Your task to perform on an android device: Open privacy settings Image 0: 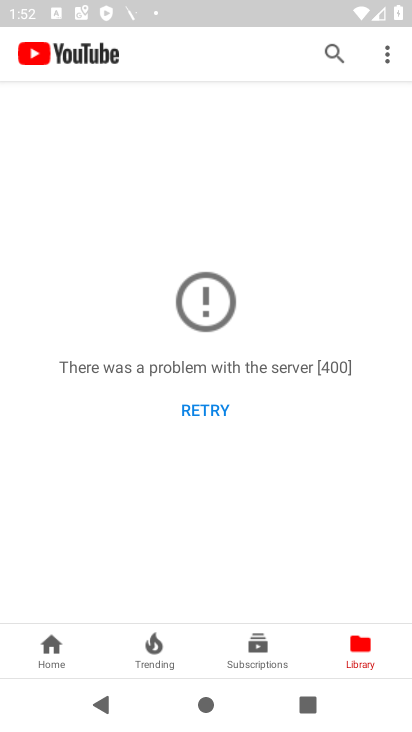
Step 0: press home button
Your task to perform on an android device: Open privacy settings Image 1: 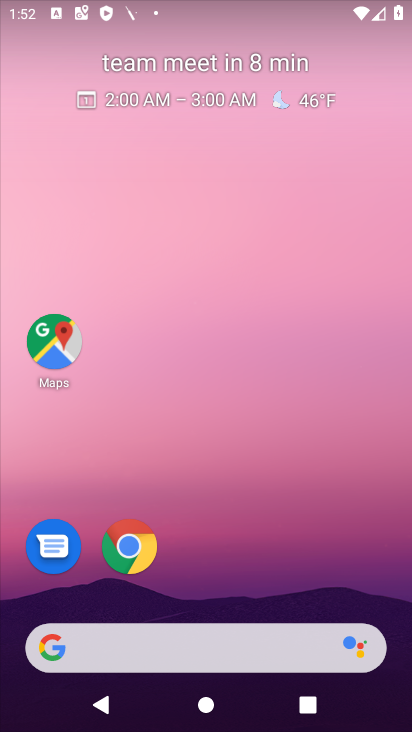
Step 1: drag from (402, 639) to (321, 186)
Your task to perform on an android device: Open privacy settings Image 2: 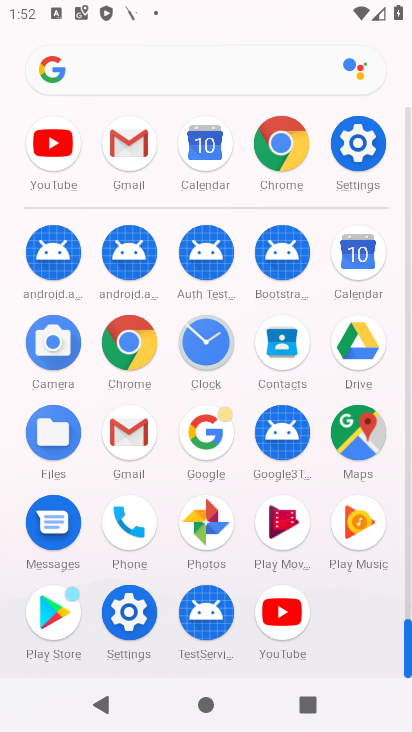
Step 2: click (130, 613)
Your task to perform on an android device: Open privacy settings Image 3: 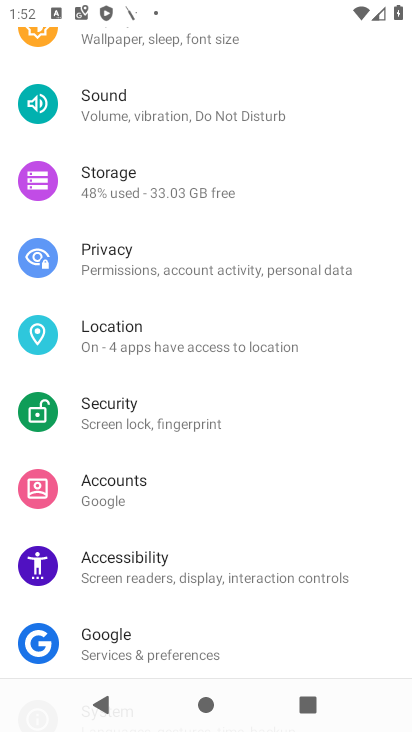
Step 3: click (105, 257)
Your task to perform on an android device: Open privacy settings Image 4: 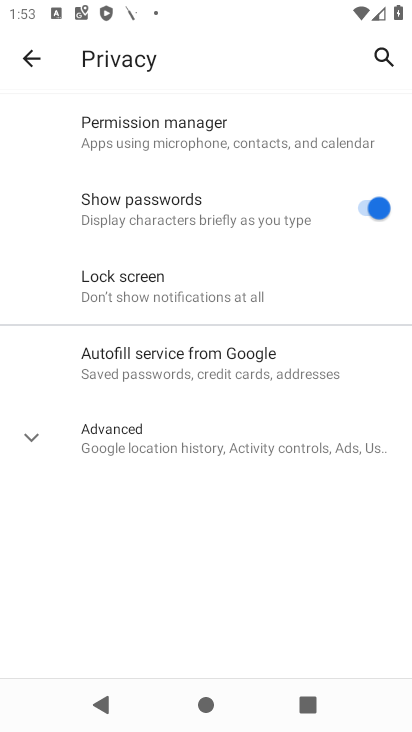
Step 4: click (30, 438)
Your task to perform on an android device: Open privacy settings Image 5: 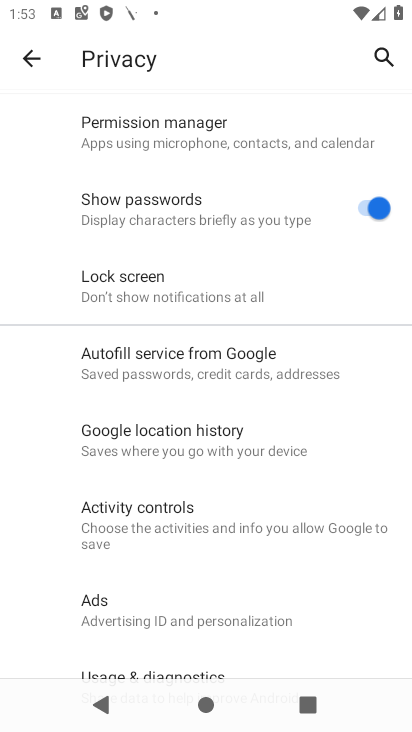
Step 5: task complete